Your task to perform on an android device: Open accessibility settings Image 0: 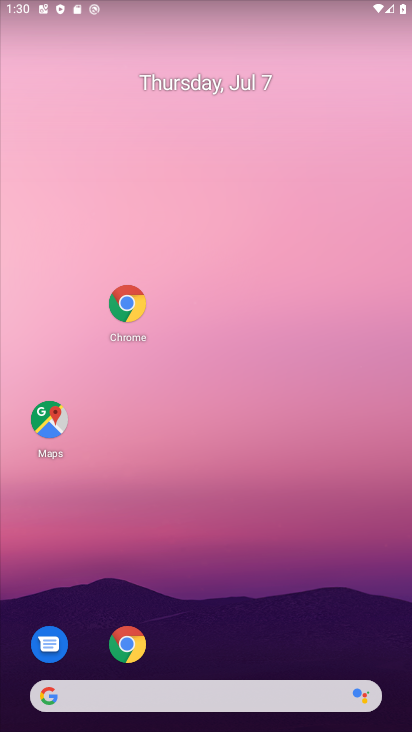
Step 0: click (254, 557)
Your task to perform on an android device: Open accessibility settings Image 1: 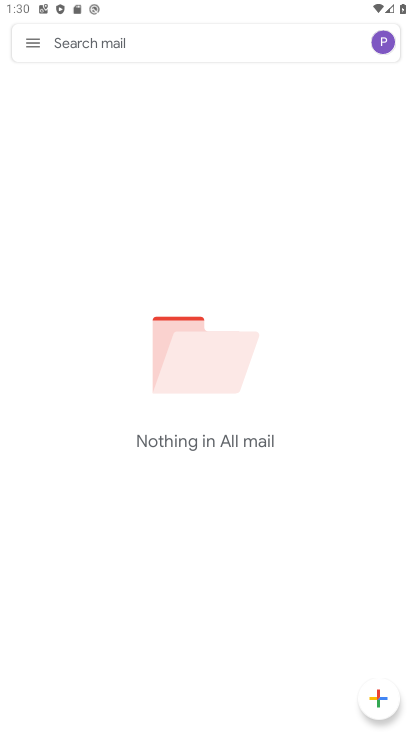
Step 1: drag from (245, 558) to (274, 288)
Your task to perform on an android device: Open accessibility settings Image 2: 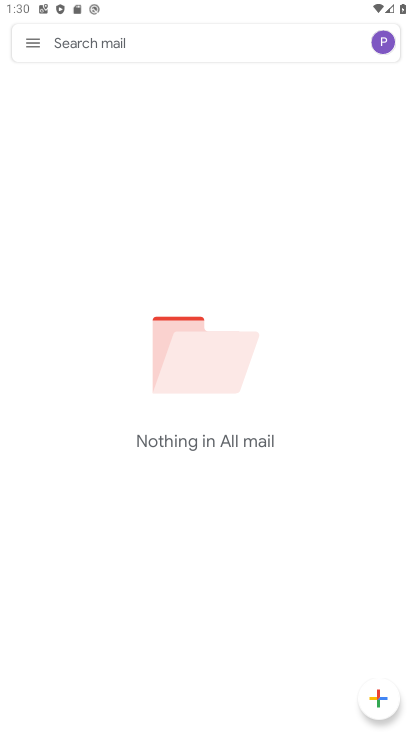
Step 2: press home button
Your task to perform on an android device: Open accessibility settings Image 3: 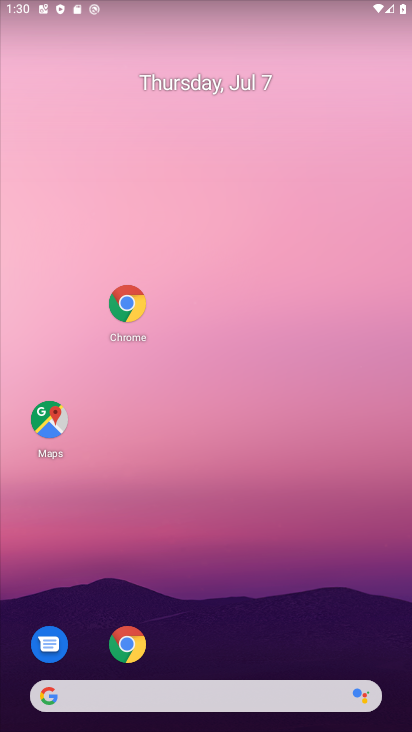
Step 3: drag from (228, 619) to (291, 13)
Your task to perform on an android device: Open accessibility settings Image 4: 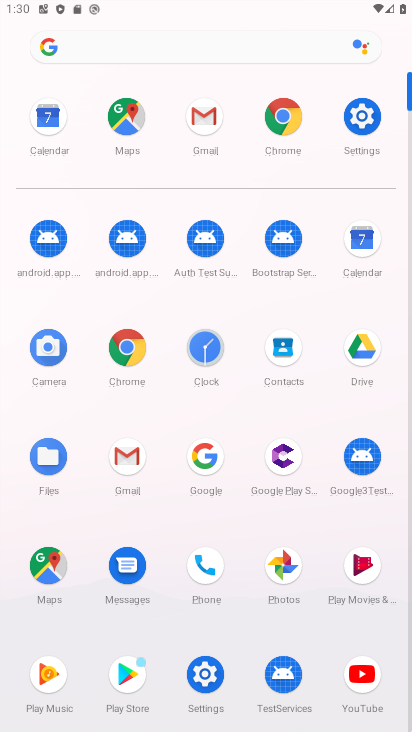
Step 4: click (209, 676)
Your task to perform on an android device: Open accessibility settings Image 5: 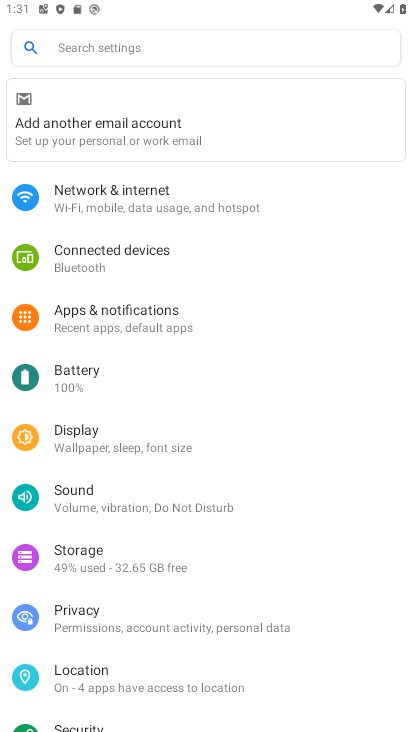
Step 5: drag from (209, 597) to (229, 172)
Your task to perform on an android device: Open accessibility settings Image 6: 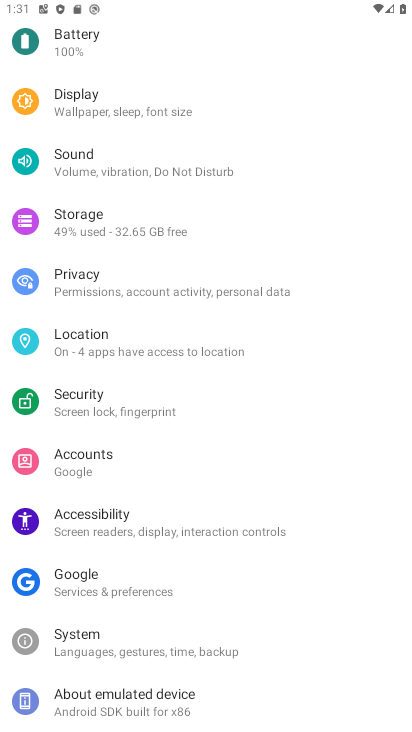
Step 6: click (167, 518)
Your task to perform on an android device: Open accessibility settings Image 7: 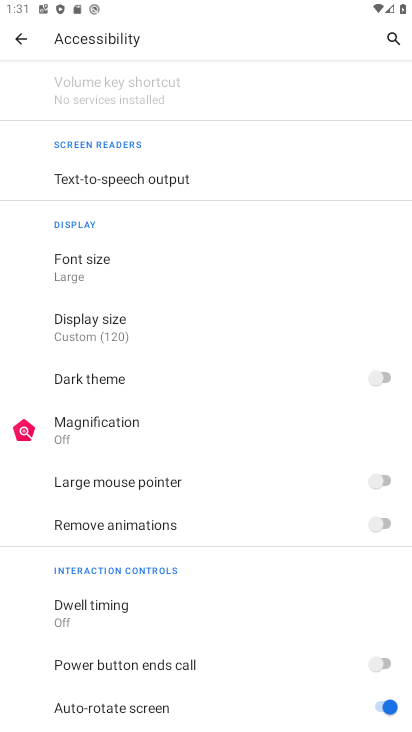
Step 7: task complete